Your task to perform on an android device: Search for "lenovo thinkpad" on bestbuy.com, select the first entry, add it to the cart, then select checkout. Image 0: 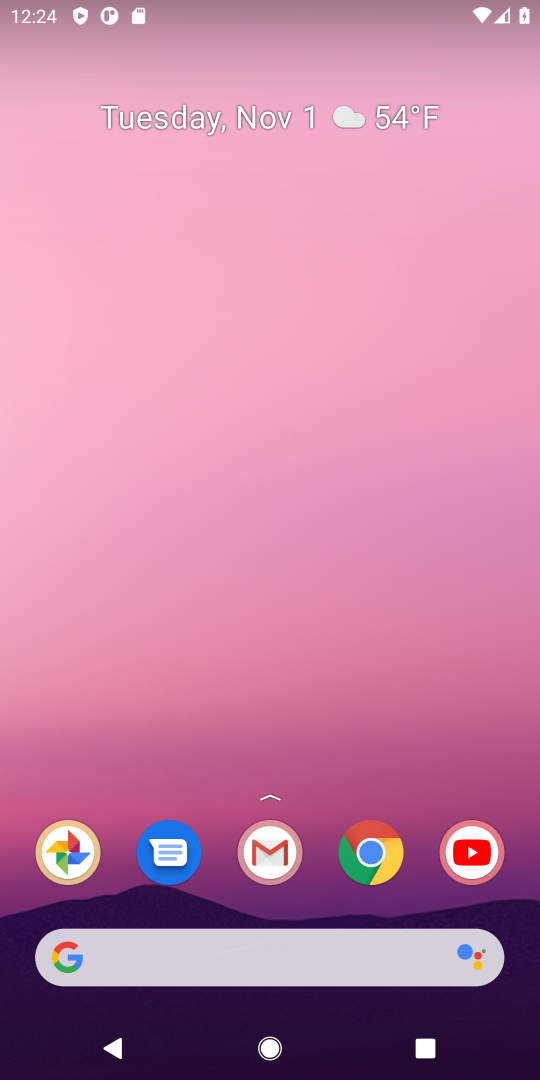
Step 0: click (374, 844)
Your task to perform on an android device: Search for "lenovo thinkpad" on bestbuy.com, select the first entry, add it to the cart, then select checkout. Image 1: 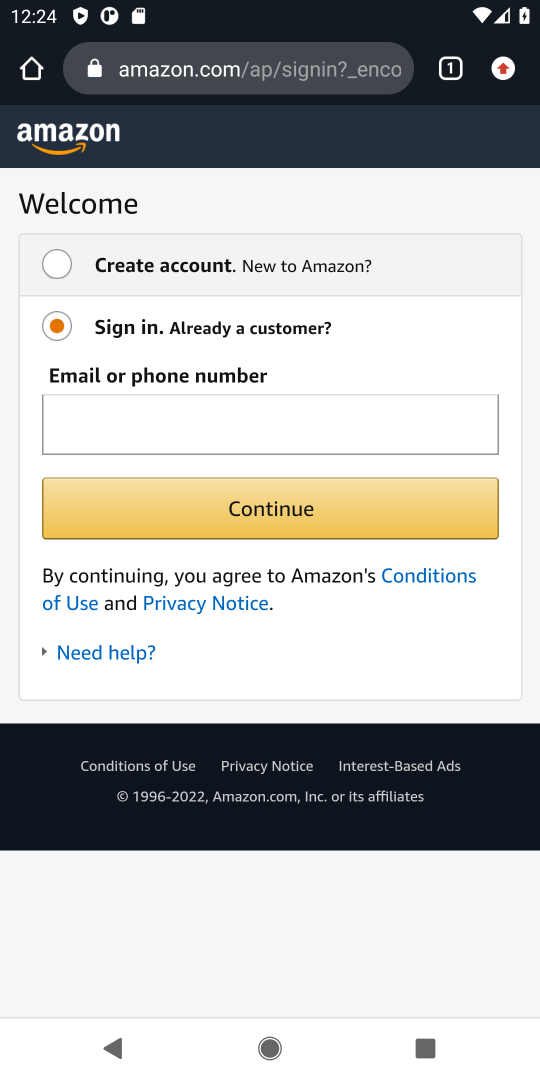
Step 1: click (248, 77)
Your task to perform on an android device: Search for "lenovo thinkpad" on bestbuy.com, select the first entry, add it to the cart, then select checkout. Image 2: 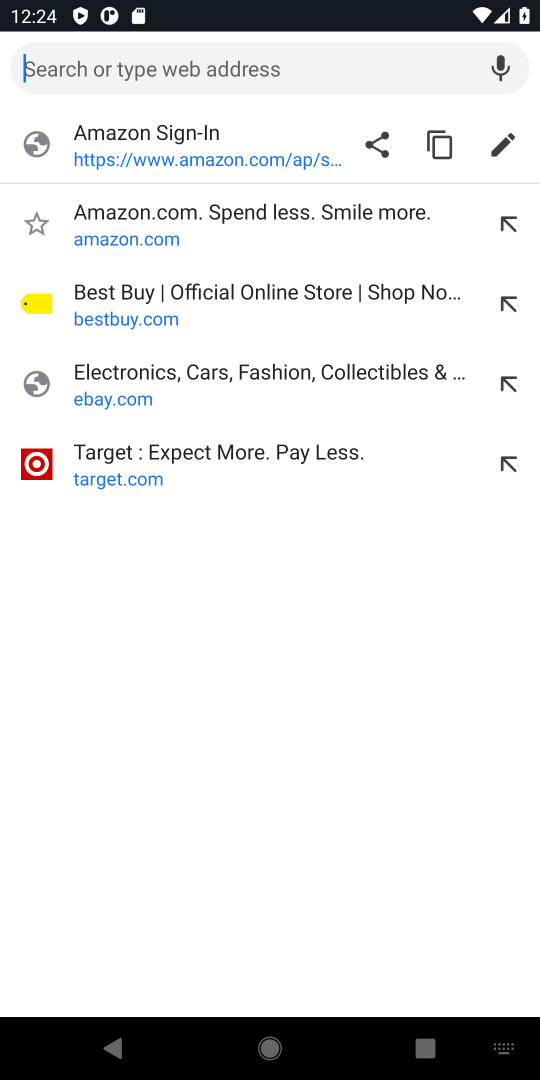
Step 2: type "bestbuy.com"
Your task to perform on an android device: Search for "lenovo thinkpad" on bestbuy.com, select the first entry, add it to the cart, then select checkout. Image 3: 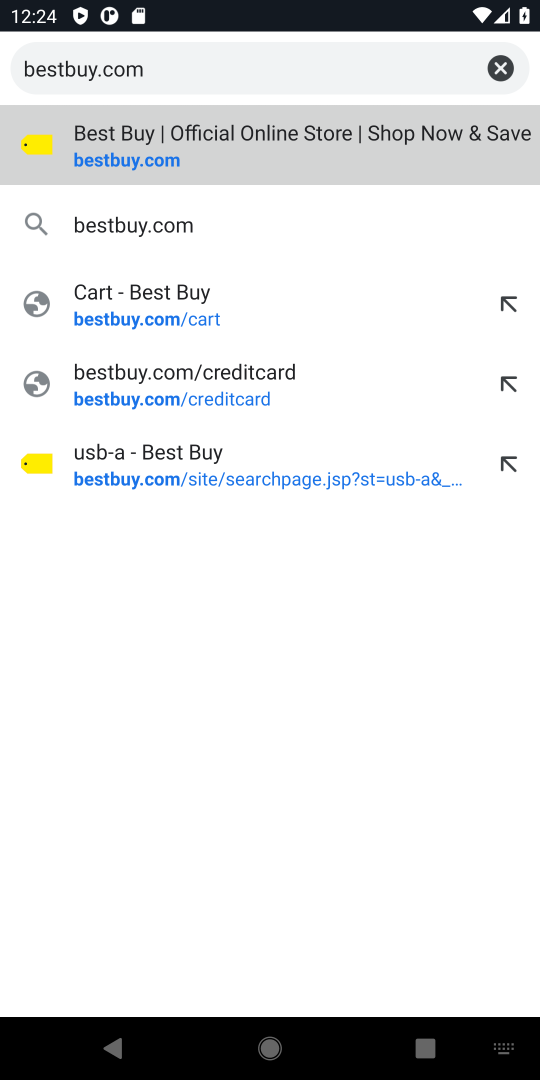
Step 3: type ""
Your task to perform on an android device: Search for "lenovo thinkpad" on bestbuy.com, select the first entry, add it to the cart, then select checkout. Image 4: 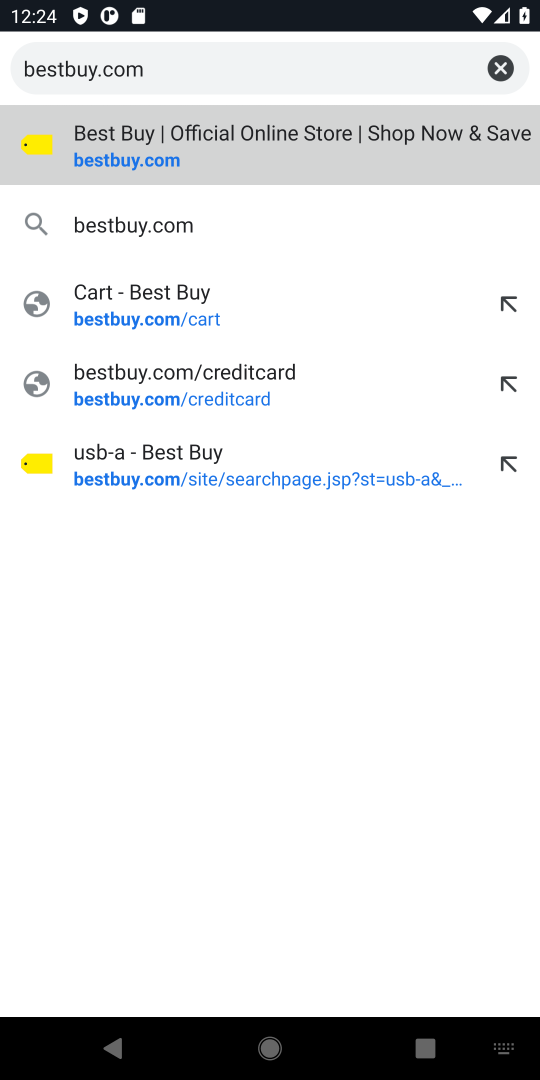
Step 4: press enter
Your task to perform on an android device: Search for "lenovo thinkpad" on bestbuy.com, select the first entry, add it to the cart, then select checkout. Image 5: 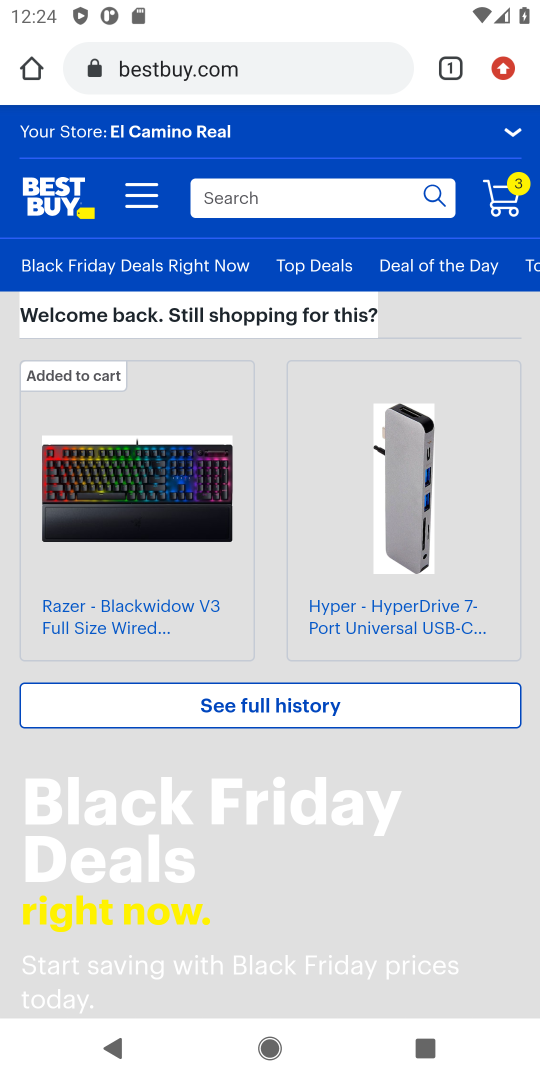
Step 5: click (288, 197)
Your task to perform on an android device: Search for "lenovo thinkpad" on bestbuy.com, select the first entry, add it to the cart, then select checkout. Image 6: 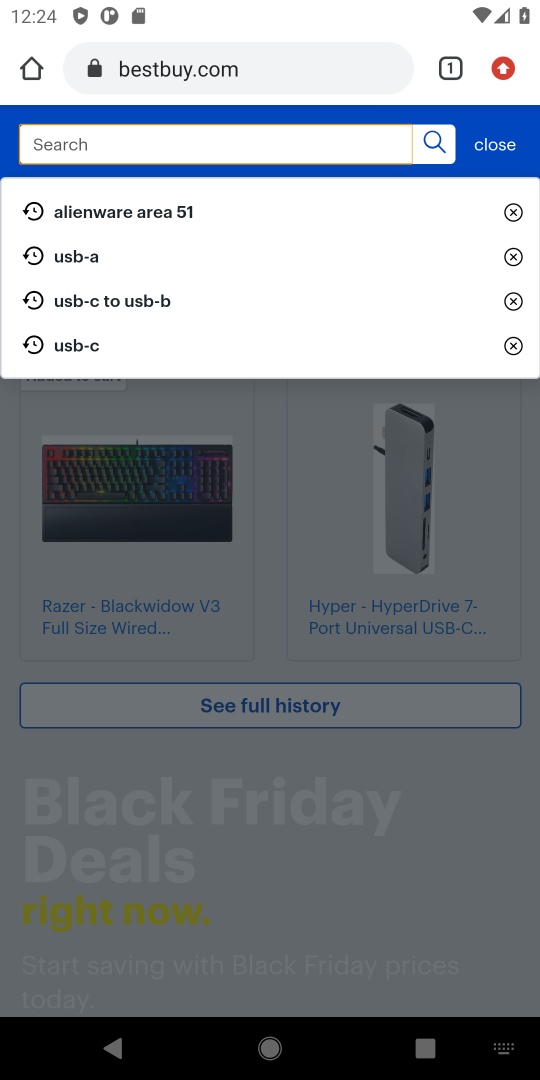
Step 6: type "lenovo thinkpad"
Your task to perform on an android device: Search for "lenovo thinkpad" on bestbuy.com, select the first entry, add it to the cart, then select checkout. Image 7: 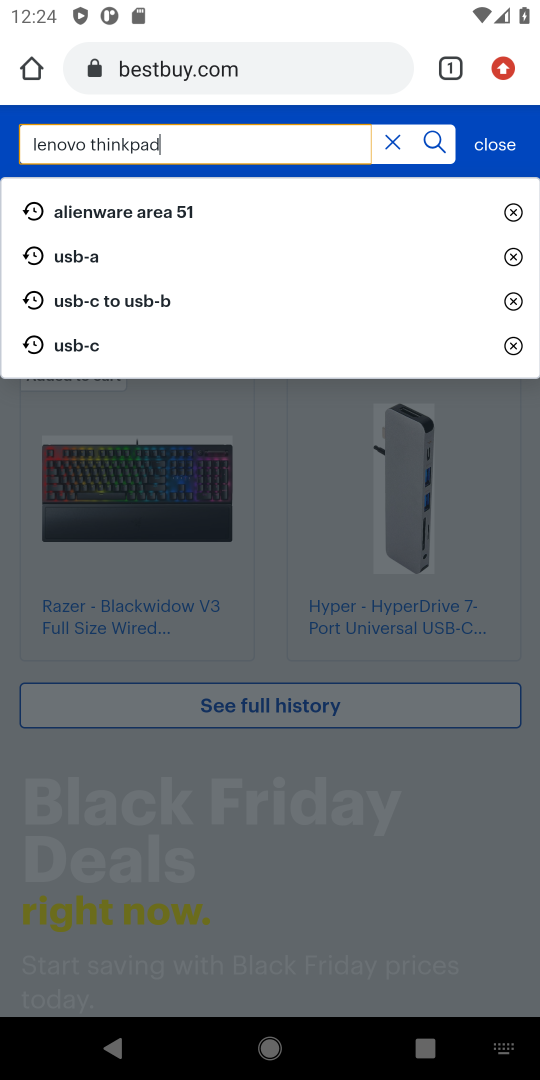
Step 7: type ""
Your task to perform on an android device: Search for "lenovo thinkpad" on bestbuy.com, select the first entry, add it to the cart, then select checkout. Image 8: 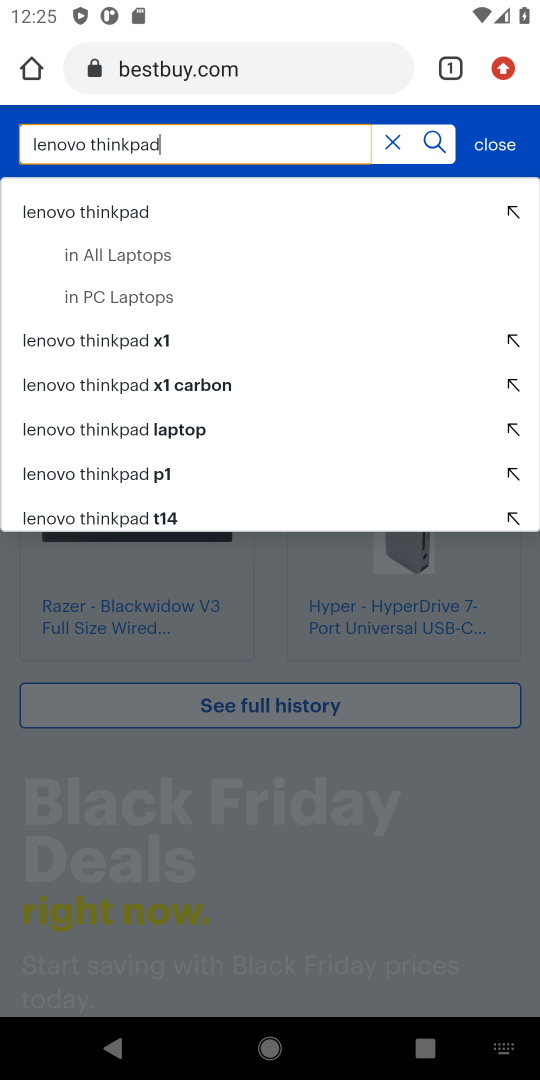
Step 8: press enter
Your task to perform on an android device: Search for "lenovo thinkpad" on bestbuy.com, select the first entry, add it to the cart, then select checkout. Image 9: 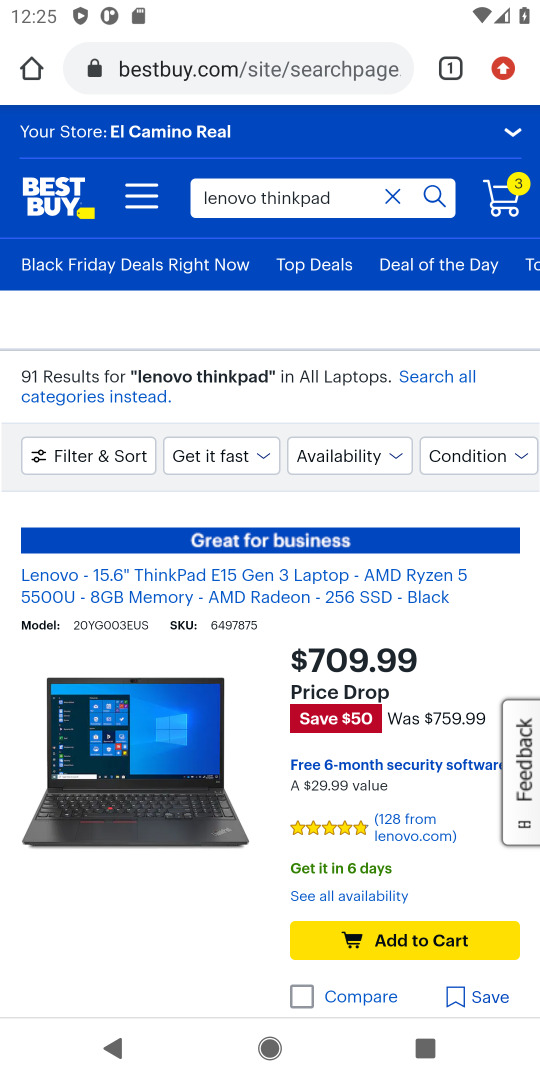
Step 9: click (429, 941)
Your task to perform on an android device: Search for "lenovo thinkpad" on bestbuy.com, select the first entry, add it to the cart, then select checkout. Image 10: 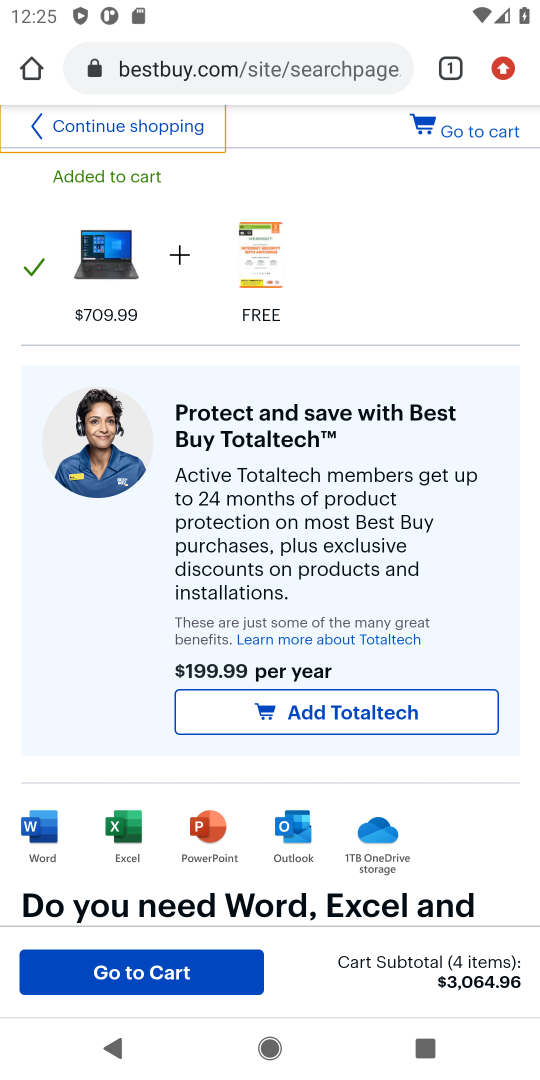
Step 10: click (183, 975)
Your task to perform on an android device: Search for "lenovo thinkpad" on bestbuy.com, select the first entry, add it to the cart, then select checkout. Image 11: 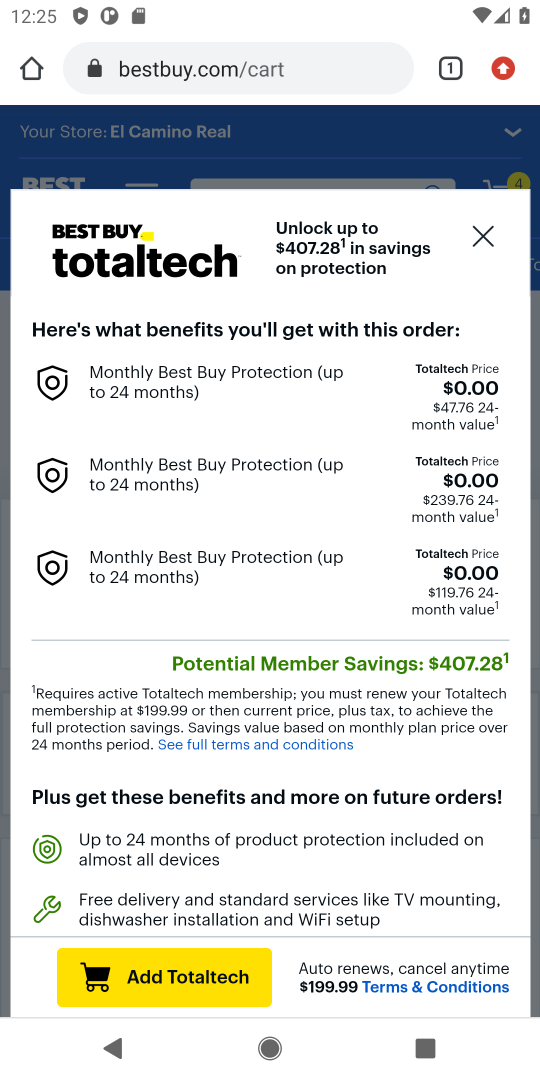
Step 11: click (489, 240)
Your task to perform on an android device: Search for "lenovo thinkpad" on bestbuy.com, select the first entry, add it to the cart, then select checkout. Image 12: 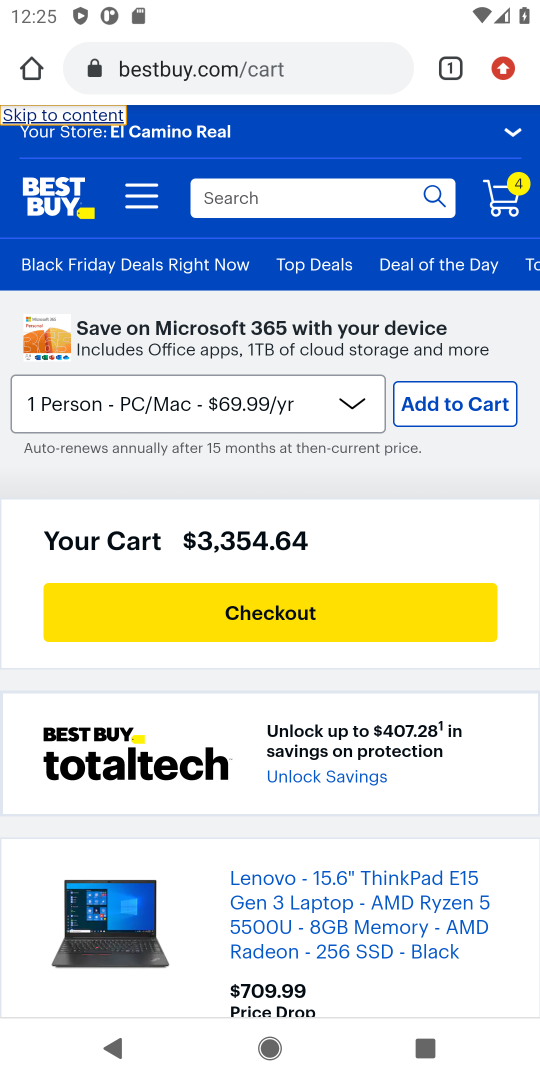
Step 12: click (402, 625)
Your task to perform on an android device: Search for "lenovo thinkpad" on bestbuy.com, select the first entry, add it to the cart, then select checkout. Image 13: 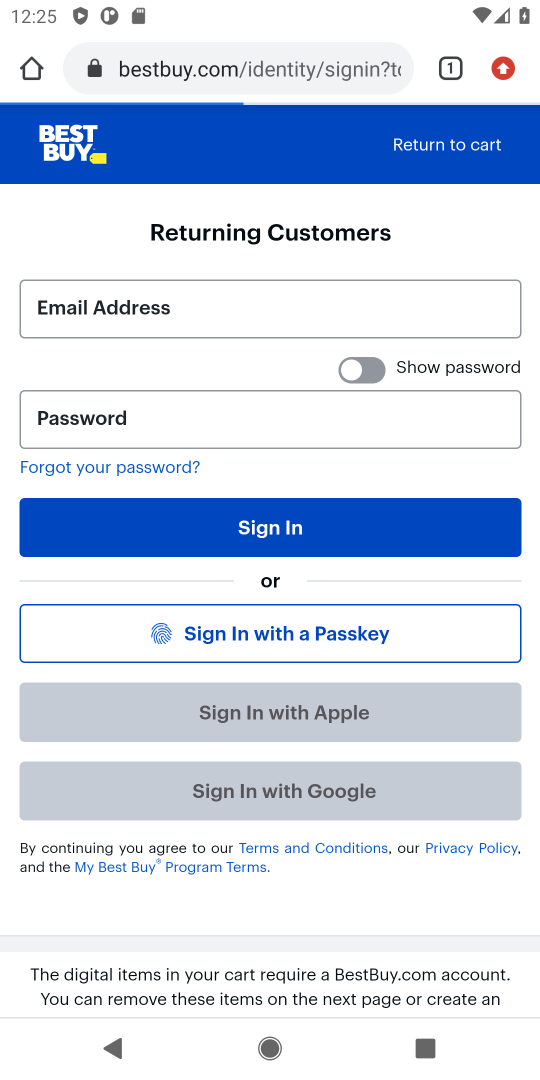
Step 13: task complete